Your task to perform on an android device: Go to notification settings Image 0: 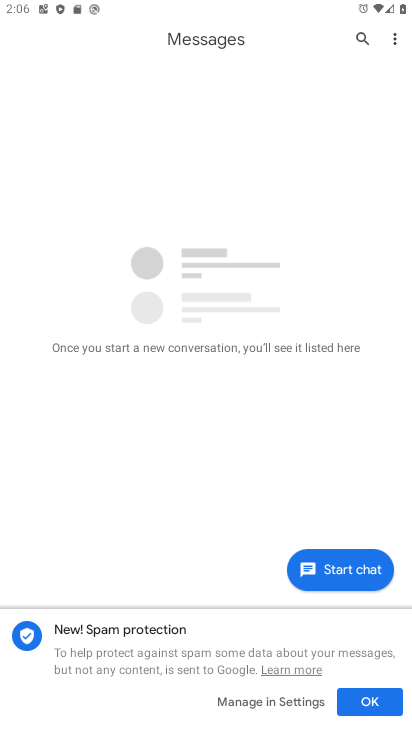
Step 0: press home button
Your task to perform on an android device: Go to notification settings Image 1: 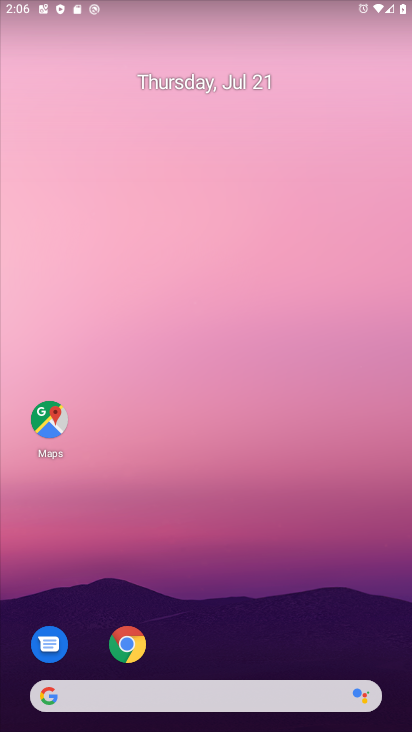
Step 1: drag from (192, 693) to (192, 228)
Your task to perform on an android device: Go to notification settings Image 2: 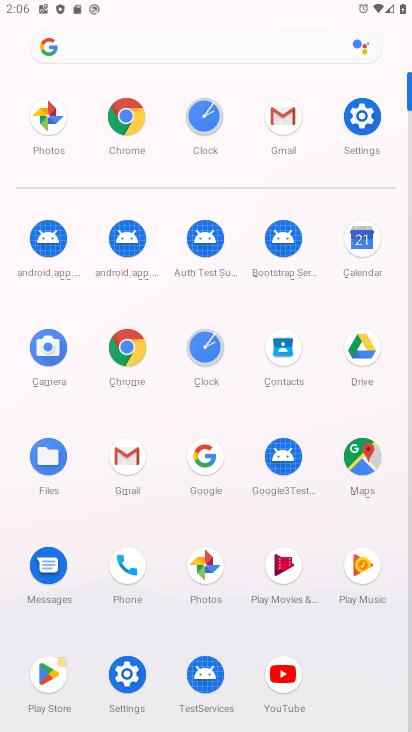
Step 2: click (350, 110)
Your task to perform on an android device: Go to notification settings Image 3: 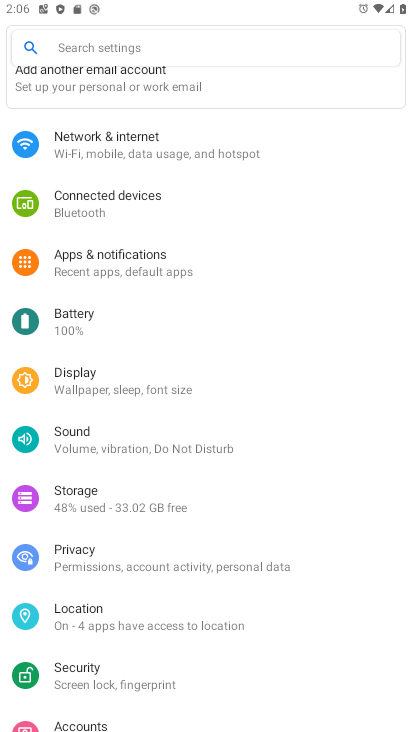
Step 3: click (120, 268)
Your task to perform on an android device: Go to notification settings Image 4: 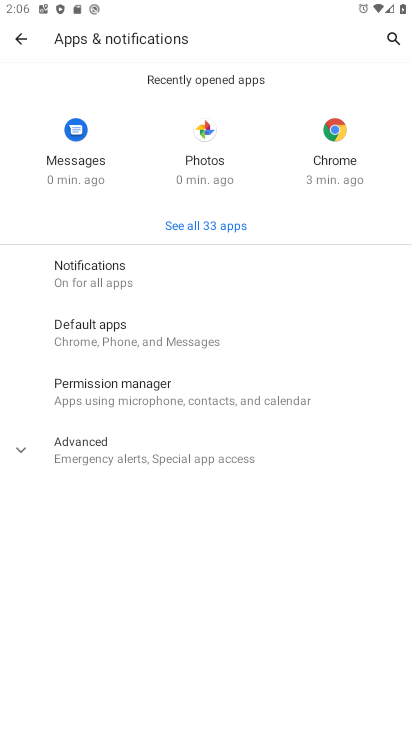
Step 4: click (69, 440)
Your task to perform on an android device: Go to notification settings Image 5: 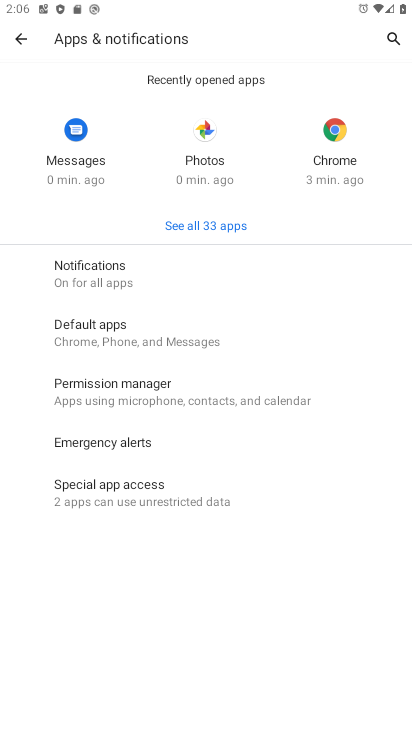
Step 5: task complete